Your task to perform on an android device: open wifi settings Image 0: 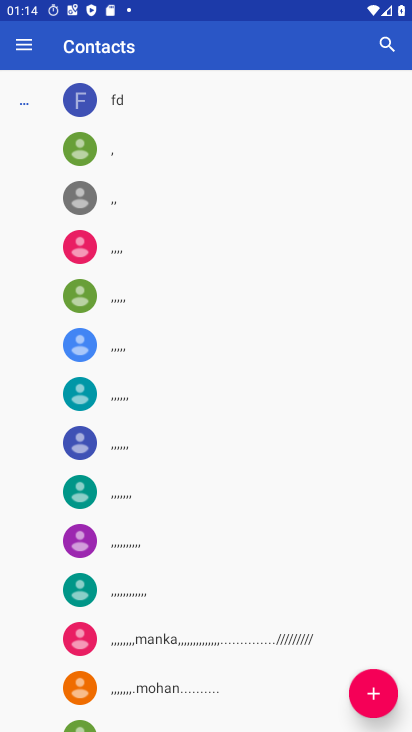
Step 0: press home button
Your task to perform on an android device: open wifi settings Image 1: 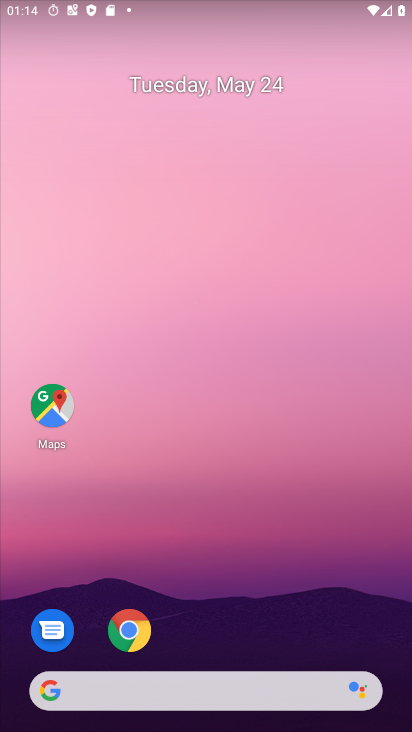
Step 1: drag from (199, 640) to (229, 0)
Your task to perform on an android device: open wifi settings Image 2: 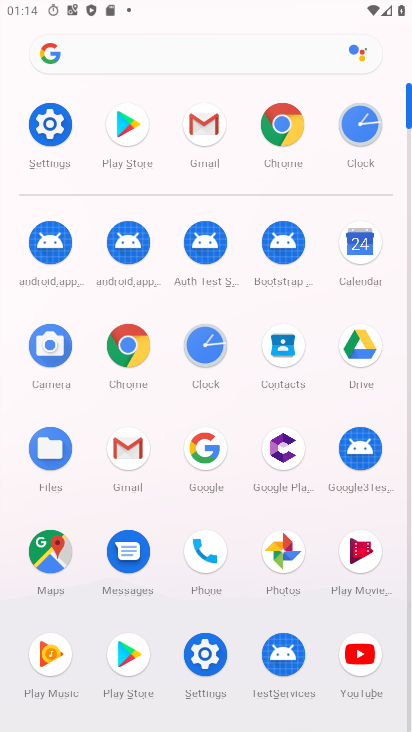
Step 2: click (52, 131)
Your task to perform on an android device: open wifi settings Image 3: 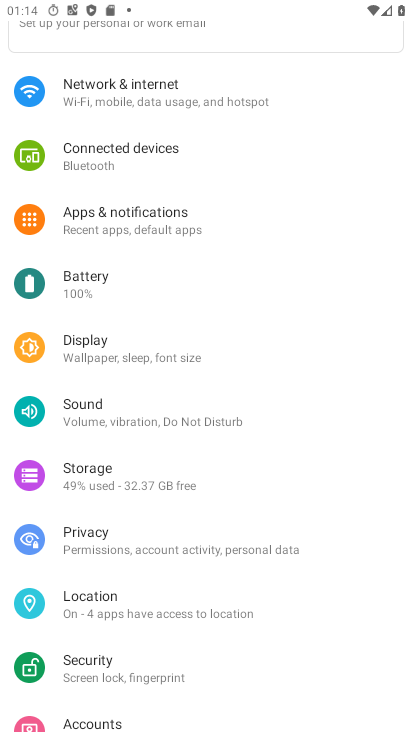
Step 3: click (114, 98)
Your task to perform on an android device: open wifi settings Image 4: 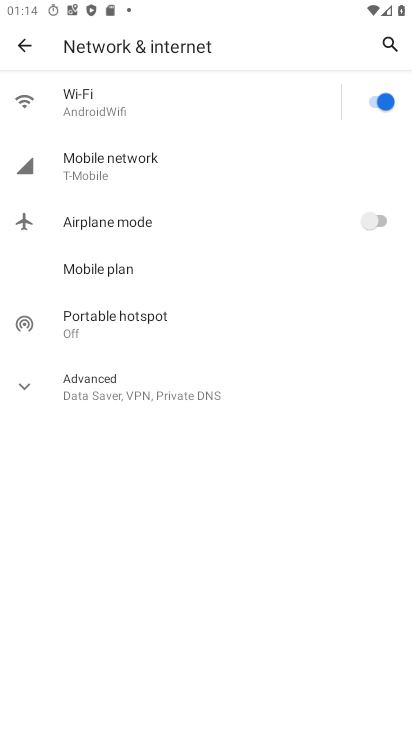
Step 4: click (53, 111)
Your task to perform on an android device: open wifi settings Image 5: 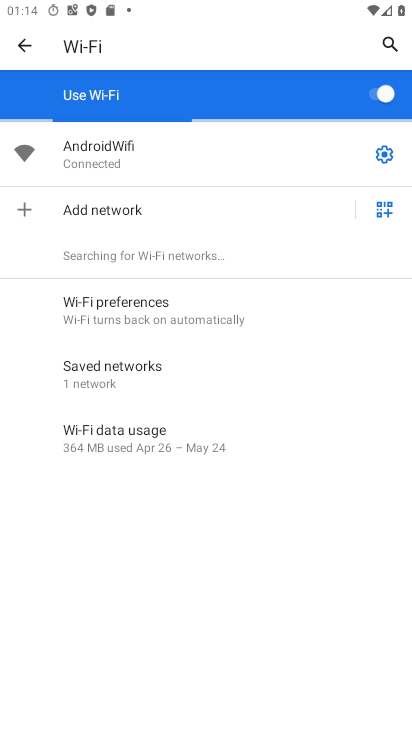
Step 5: task complete